Your task to perform on an android device: open chrome privacy settings Image 0: 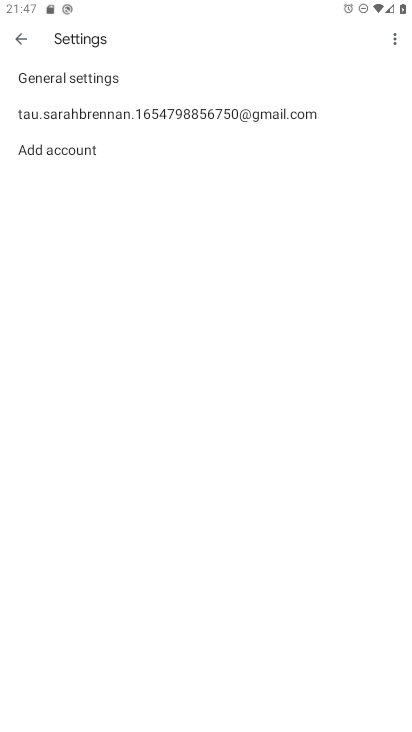
Step 0: press home button
Your task to perform on an android device: open chrome privacy settings Image 1: 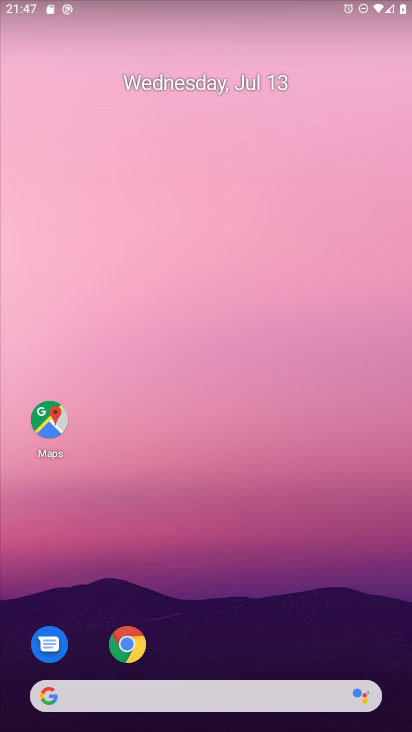
Step 1: click (131, 645)
Your task to perform on an android device: open chrome privacy settings Image 2: 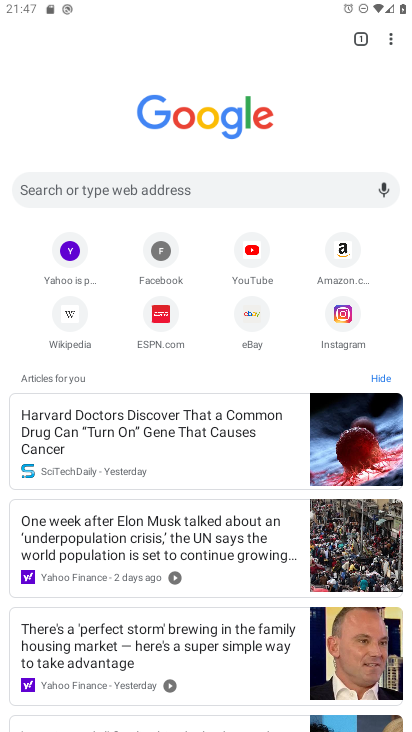
Step 2: click (388, 34)
Your task to perform on an android device: open chrome privacy settings Image 3: 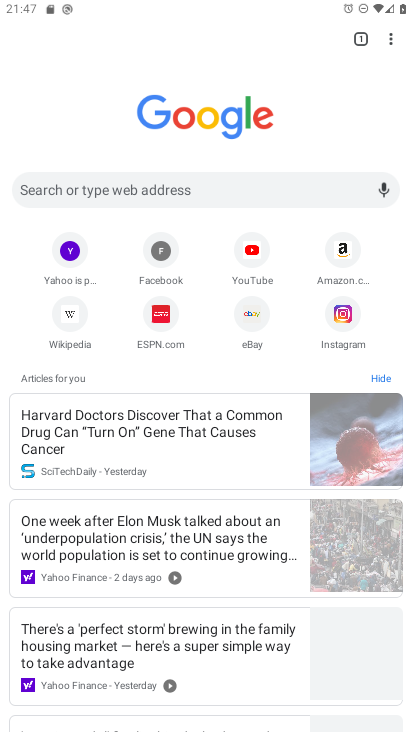
Step 3: drag from (388, 34) to (259, 323)
Your task to perform on an android device: open chrome privacy settings Image 4: 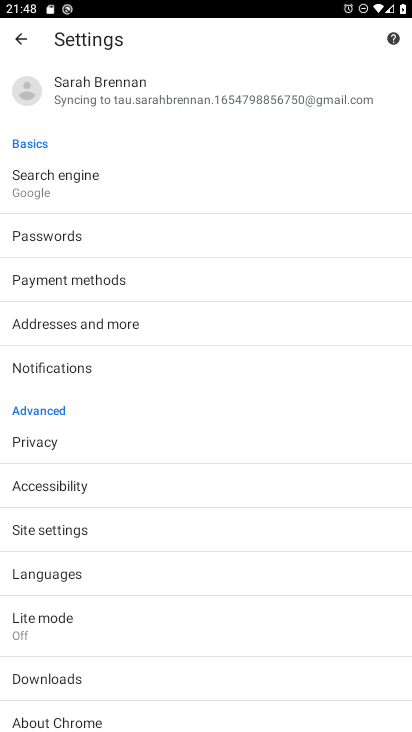
Step 4: click (40, 434)
Your task to perform on an android device: open chrome privacy settings Image 5: 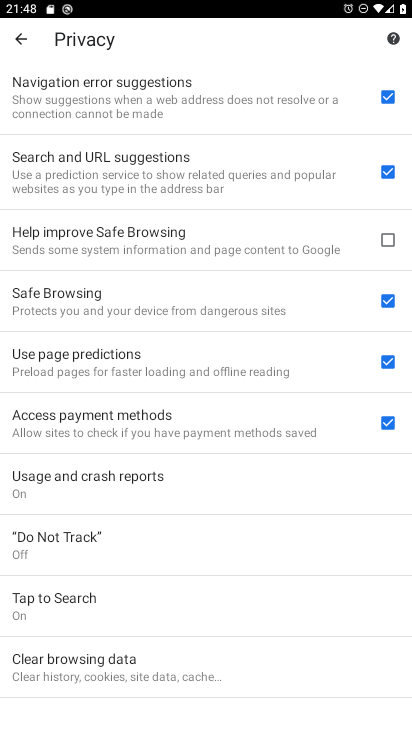
Step 5: task complete